Your task to perform on an android device: create a new album in the google photos Image 0: 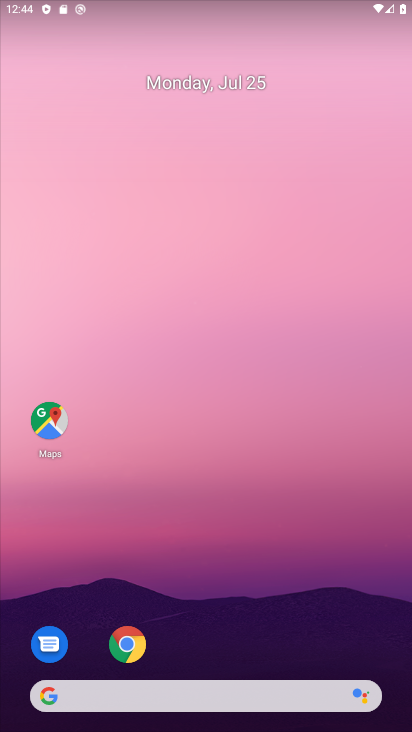
Step 0: drag from (244, 594) to (272, 93)
Your task to perform on an android device: create a new album in the google photos Image 1: 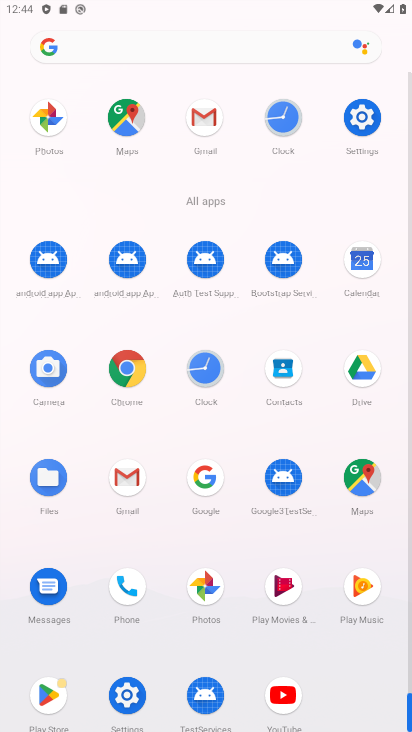
Step 1: click (49, 117)
Your task to perform on an android device: create a new album in the google photos Image 2: 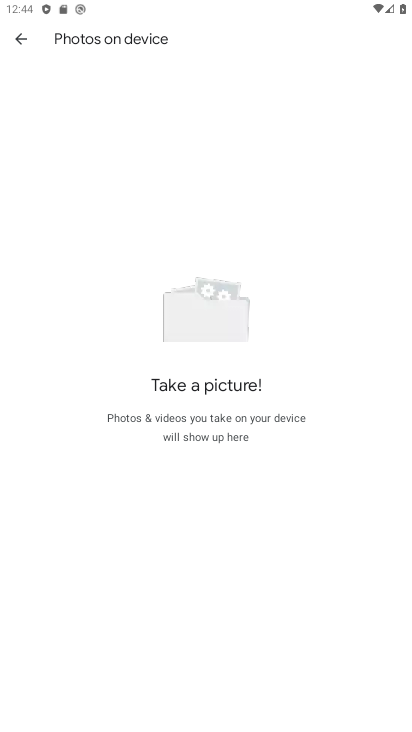
Step 2: click (23, 33)
Your task to perform on an android device: create a new album in the google photos Image 3: 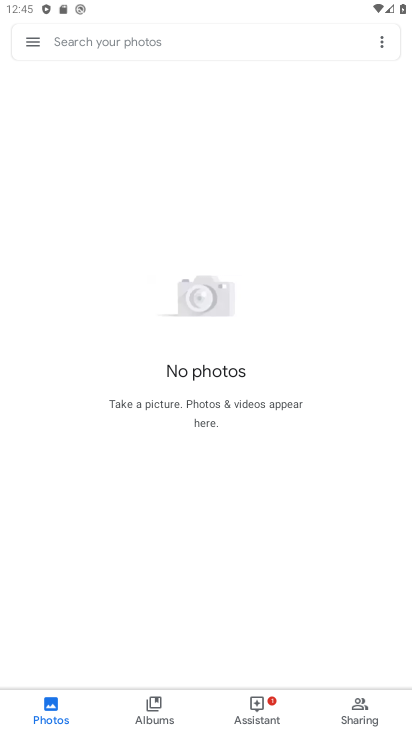
Step 3: click (187, 705)
Your task to perform on an android device: create a new album in the google photos Image 4: 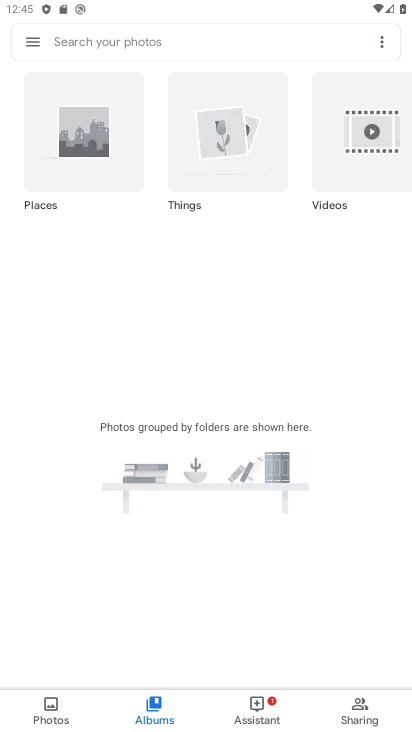
Step 4: click (382, 36)
Your task to perform on an android device: create a new album in the google photos Image 5: 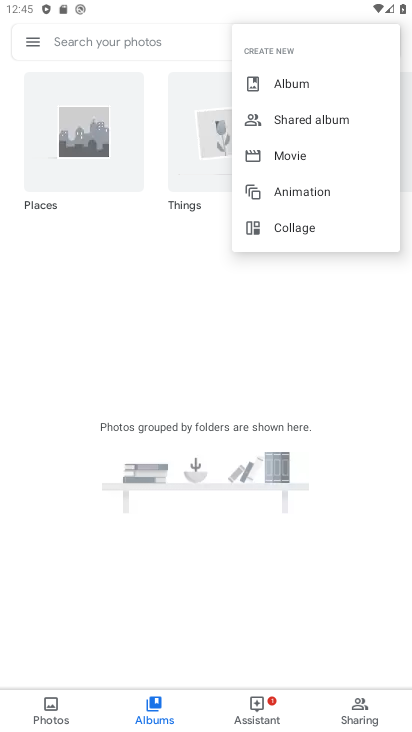
Step 5: click (293, 86)
Your task to perform on an android device: create a new album in the google photos Image 6: 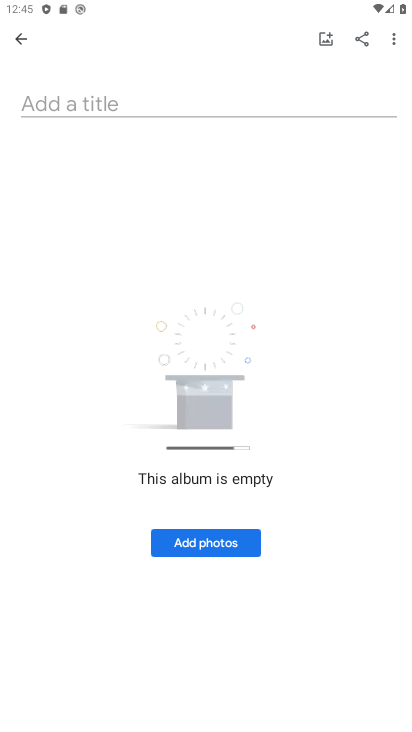
Step 6: click (210, 108)
Your task to perform on an android device: create a new album in the google photos Image 7: 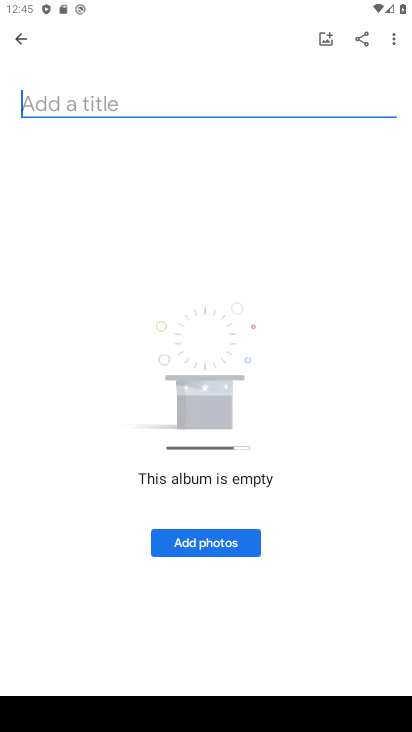
Step 7: type "jgjgi"
Your task to perform on an android device: create a new album in the google photos Image 8: 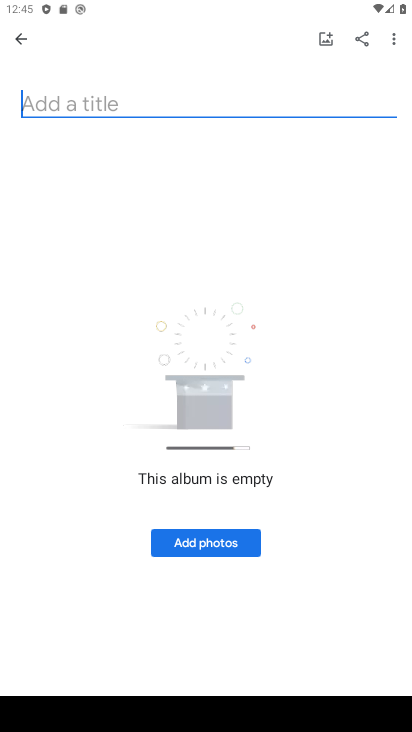
Step 8: click (228, 548)
Your task to perform on an android device: create a new album in the google photos Image 9: 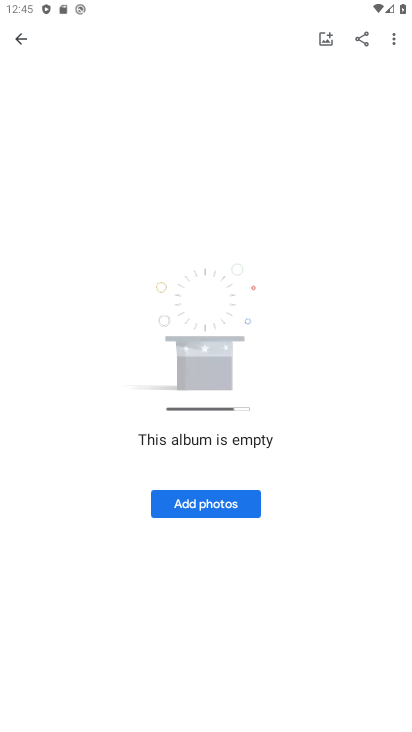
Step 9: click (248, 510)
Your task to perform on an android device: create a new album in the google photos Image 10: 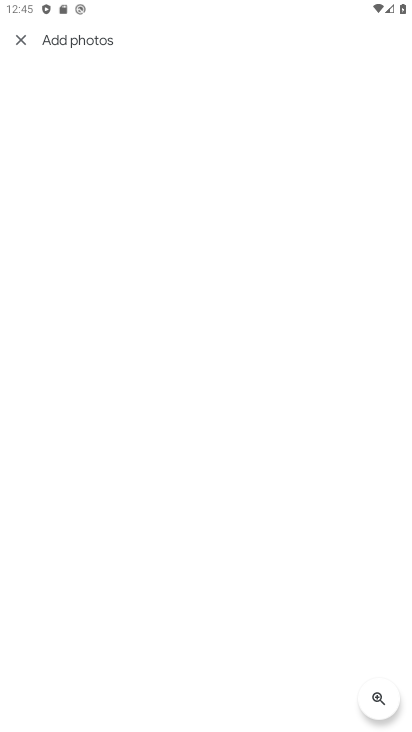
Step 10: click (22, 37)
Your task to perform on an android device: create a new album in the google photos Image 11: 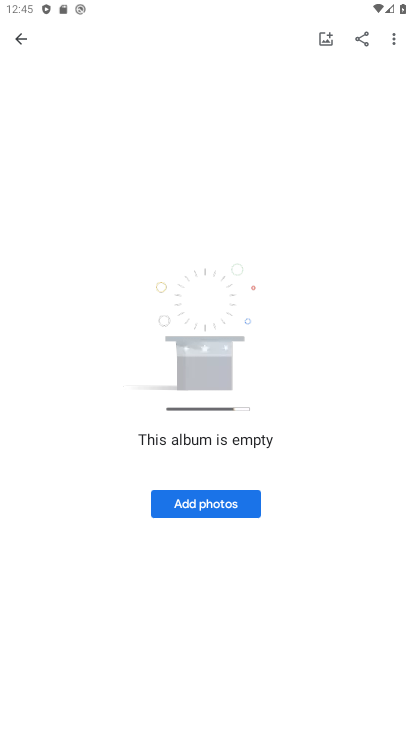
Step 11: click (399, 39)
Your task to perform on an android device: create a new album in the google photos Image 12: 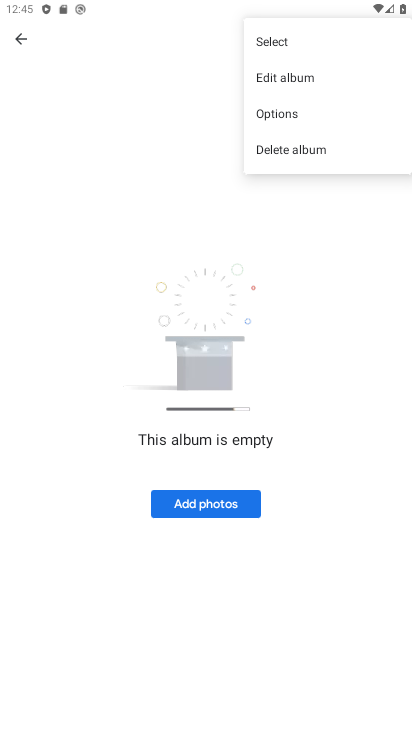
Step 12: click (270, 120)
Your task to perform on an android device: create a new album in the google photos Image 13: 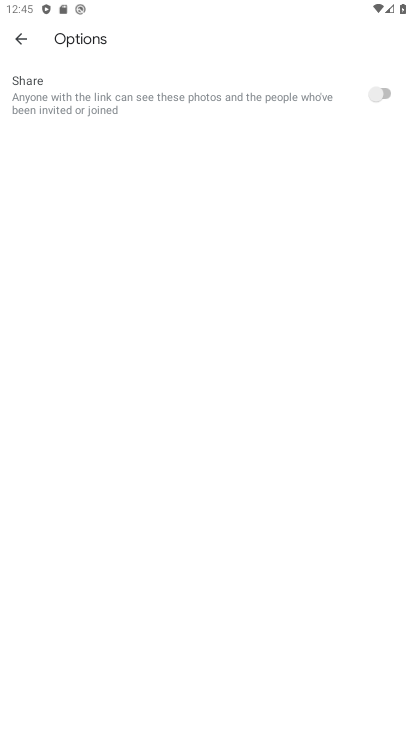
Step 13: click (24, 35)
Your task to perform on an android device: create a new album in the google photos Image 14: 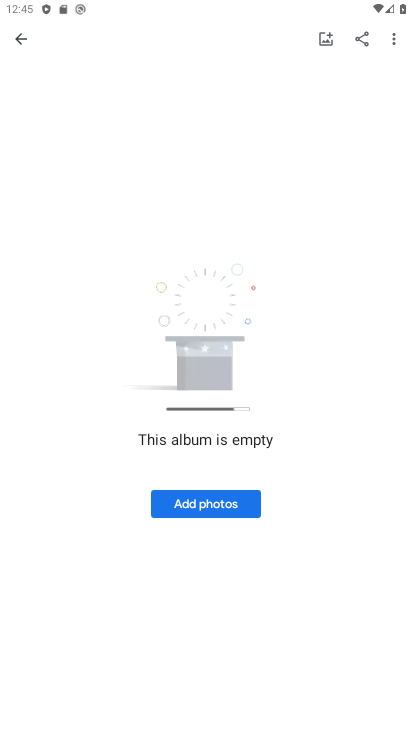
Step 14: click (397, 37)
Your task to perform on an android device: create a new album in the google photos Image 15: 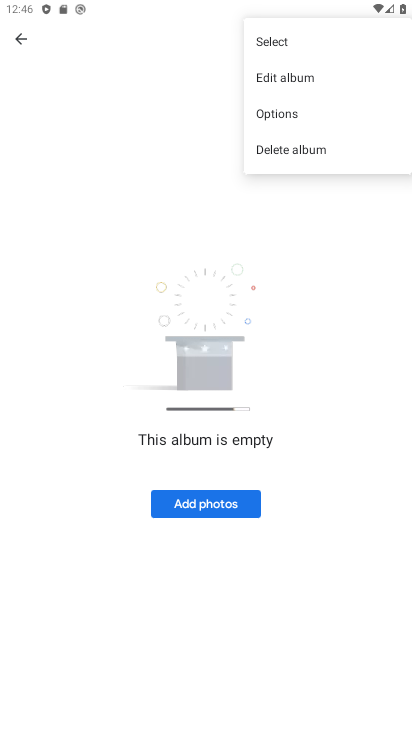
Step 15: click (282, 44)
Your task to perform on an android device: create a new album in the google photos Image 16: 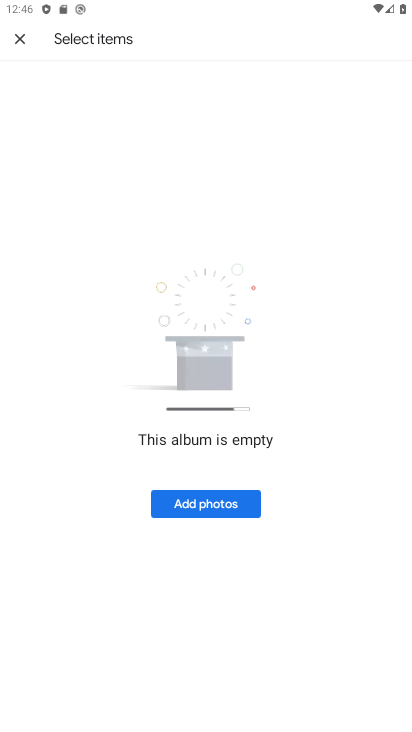
Step 16: click (30, 33)
Your task to perform on an android device: create a new album in the google photos Image 17: 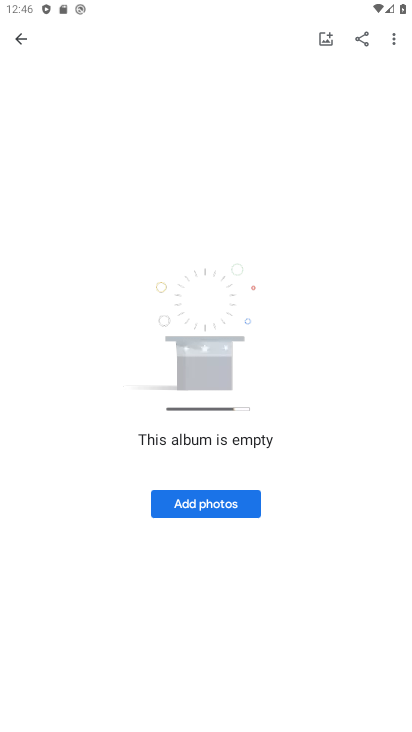
Step 17: click (30, 33)
Your task to perform on an android device: create a new album in the google photos Image 18: 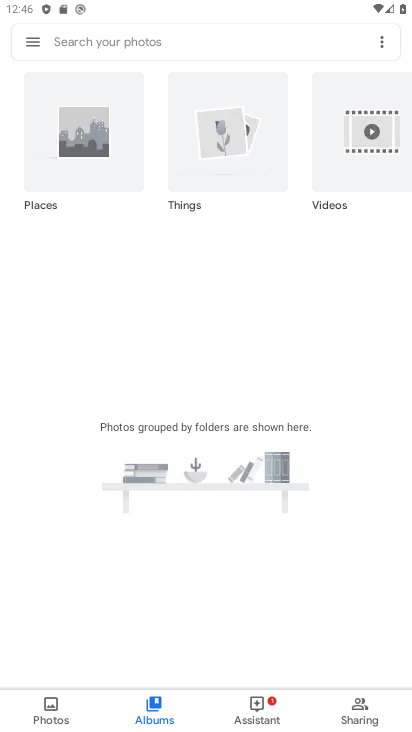
Step 18: drag from (356, 134) to (38, 129)
Your task to perform on an android device: create a new album in the google photos Image 19: 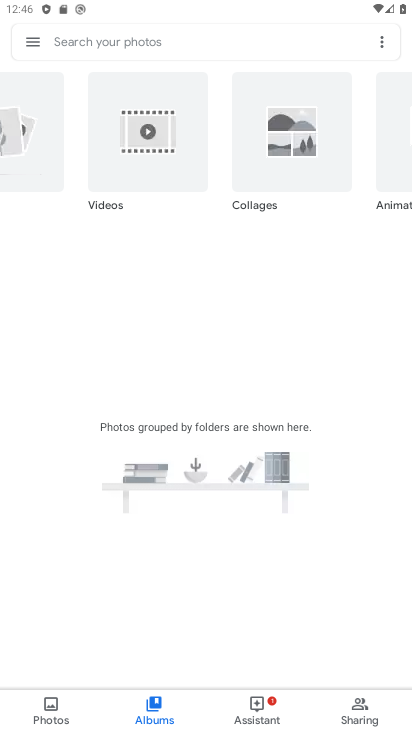
Step 19: click (147, 709)
Your task to perform on an android device: create a new album in the google photos Image 20: 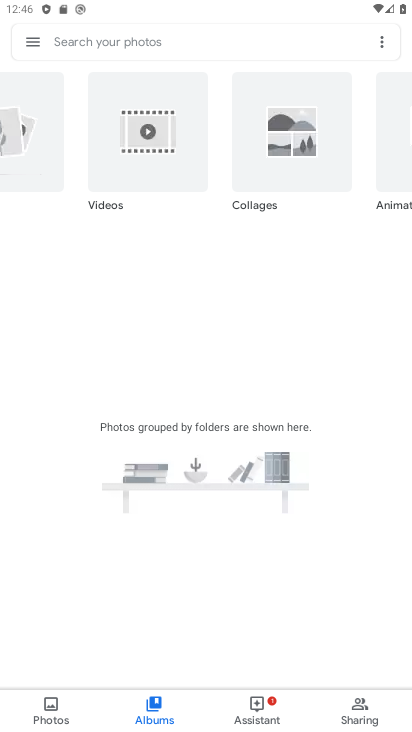
Step 20: task complete